Your task to perform on an android device: turn on javascript in the chrome app Image 0: 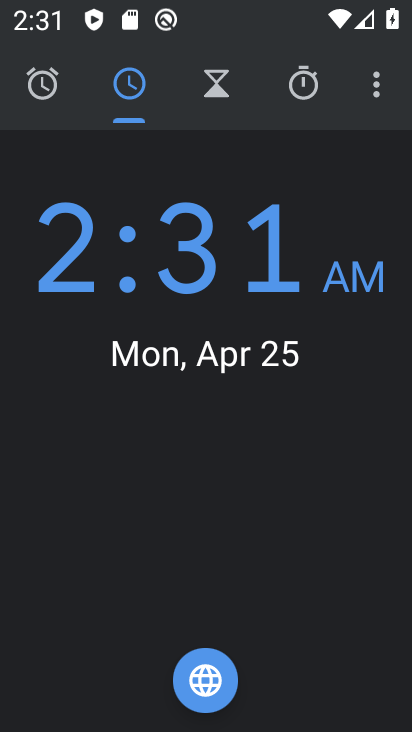
Step 0: press home button
Your task to perform on an android device: turn on javascript in the chrome app Image 1: 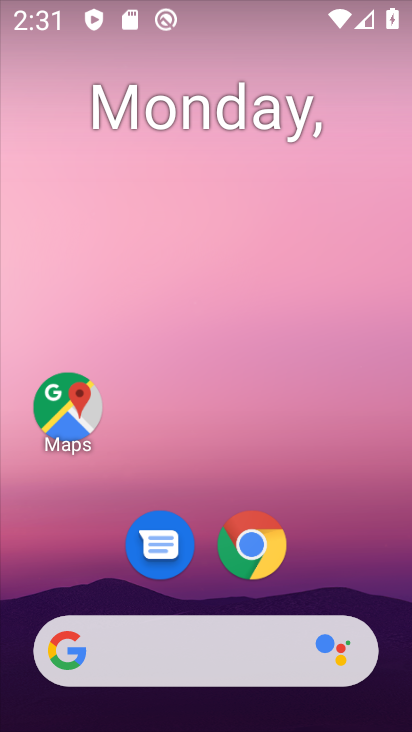
Step 1: click (255, 548)
Your task to perform on an android device: turn on javascript in the chrome app Image 2: 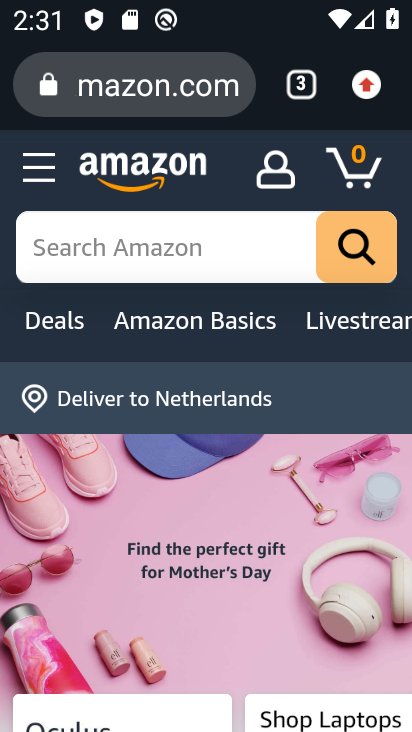
Step 2: drag from (365, 88) to (123, 589)
Your task to perform on an android device: turn on javascript in the chrome app Image 3: 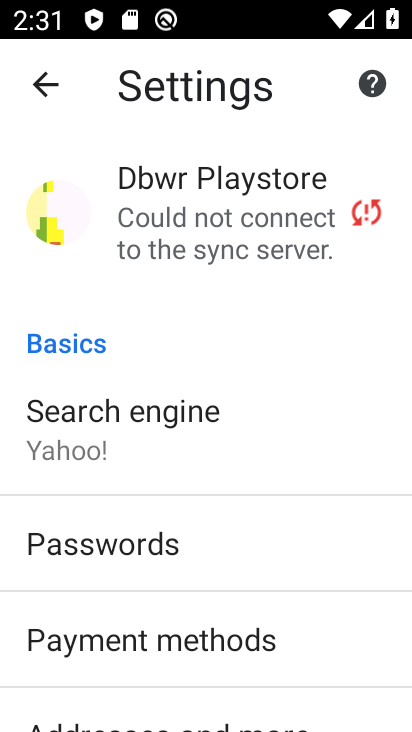
Step 3: drag from (215, 591) to (300, 183)
Your task to perform on an android device: turn on javascript in the chrome app Image 4: 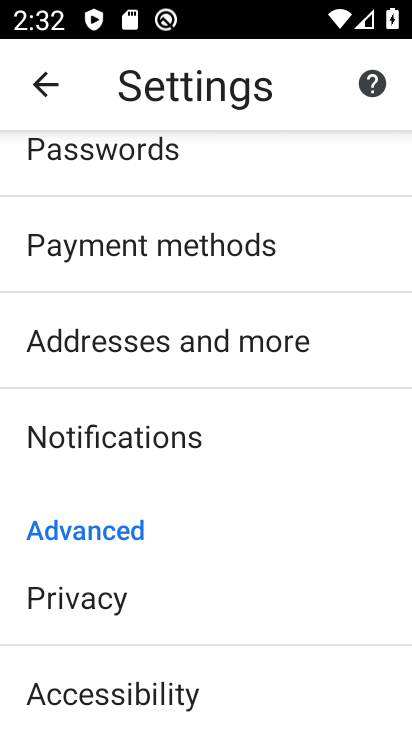
Step 4: drag from (192, 682) to (269, 313)
Your task to perform on an android device: turn on javascript in the chrome app Image 5: 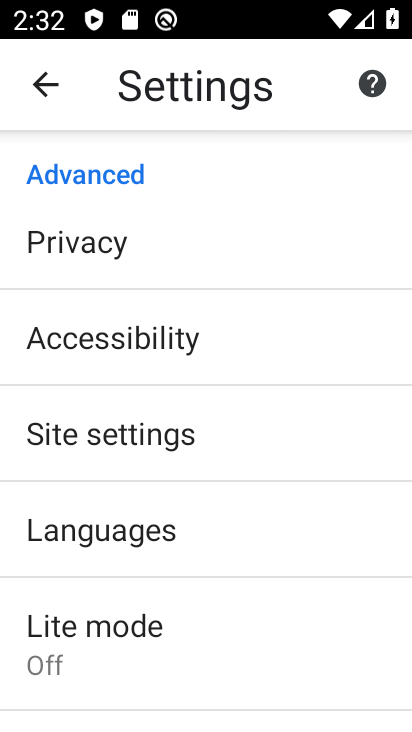
Step 5: click (156, 433)
Your task to perform on an android device: turn on javascript in the chrome app Image 6: 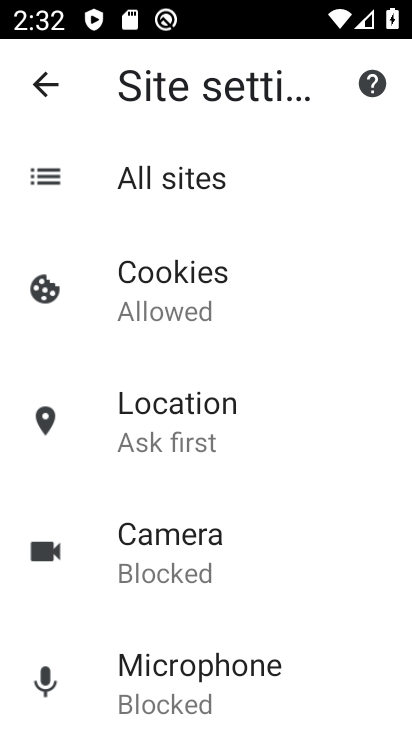
Step 6: click (177, 280)
Your task to perform on an android device: turn on javascript in the chrome app Image 7: 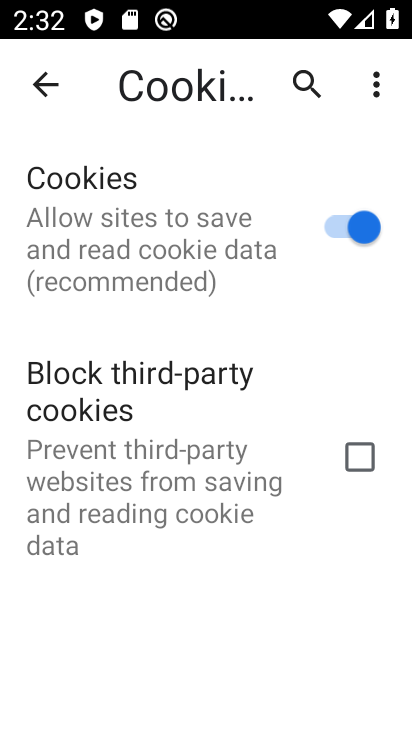
Step 7: click (29, 76)
Your task to perform on an android device: turn on javascript in the chrome app Image 8: 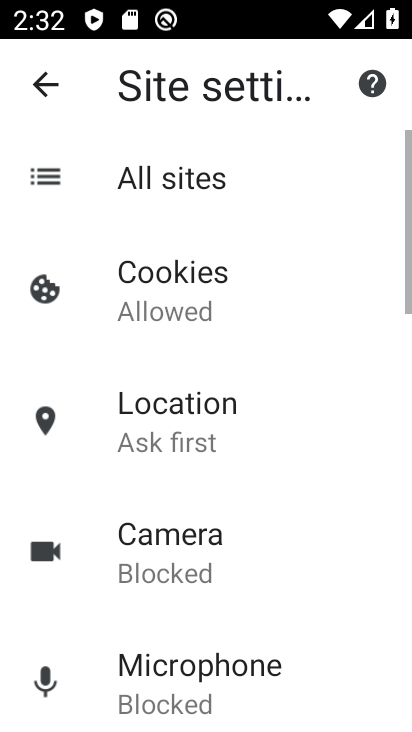
Step 8: drag from (171, 601) to (343, 89)
Your task to perform on an android device: turn on javascript in the chrome app Image 9: 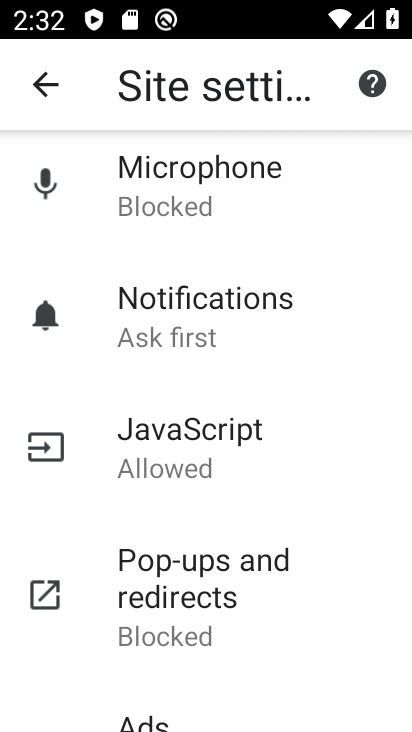
Step 9: click (205, 451)
Your task to perform on an android device: turn on javascript in the chrome app Image 10: 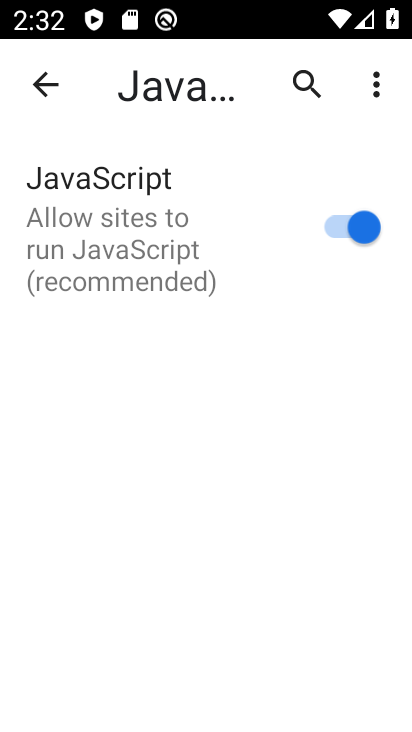
Step 10: task complete